Your task to perform on an android device: turn off notifications in google photos Image 0: 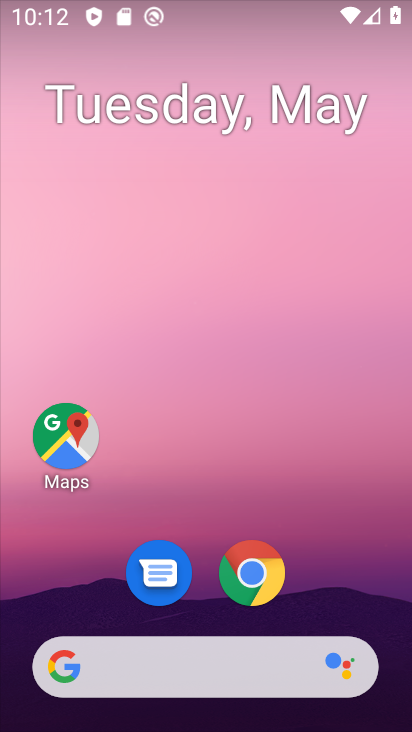
Step 0: drag from (342, 604) to (327, 23)
Your task to perform on an android device: turn off notifications in google photos Image 1: 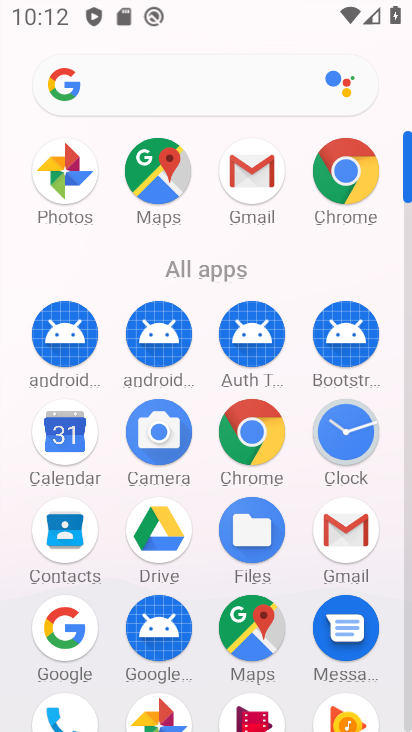
Step 1: drag from (299, 259) to (313, 26)
Your task to perform on an android device: turn off notifications in google photos Image 2: 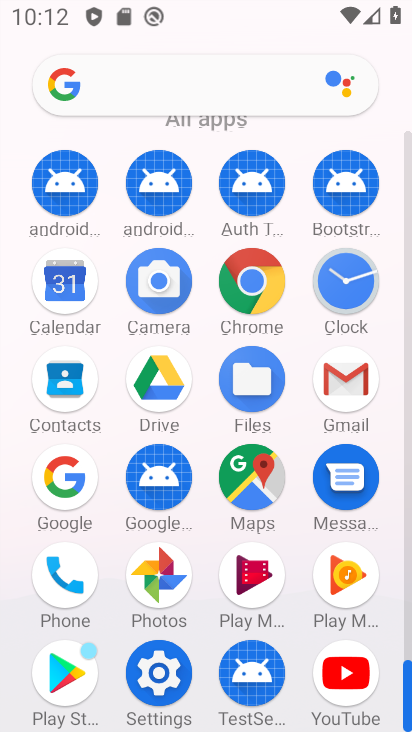
Step 2: click (169, 569)
Your task to perform on an android device: turn off notifications in google photos Image 3: 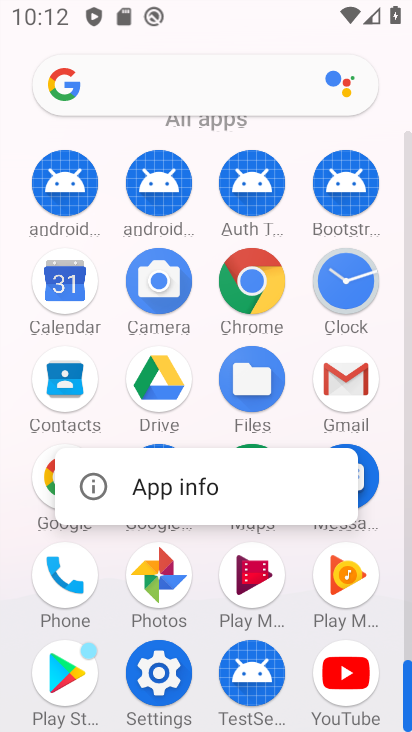
Step 3: click (277, 461)
Your task to perform on an android device: turn off notifications in google photos Image 4: 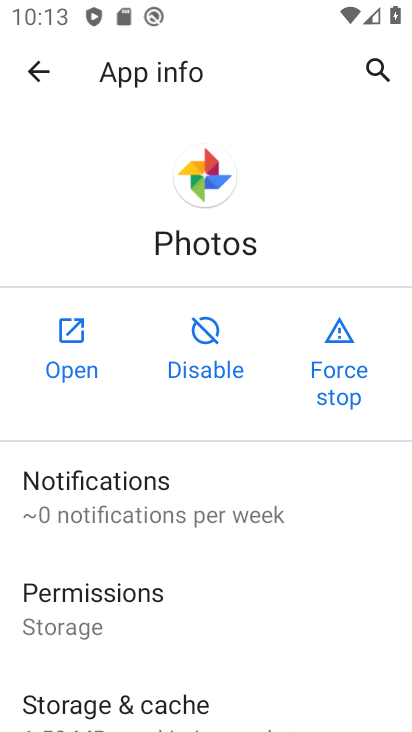
Step 4: click (86, 503)
Your task to perform on an android device: turn off notifications in google photos Image 5: 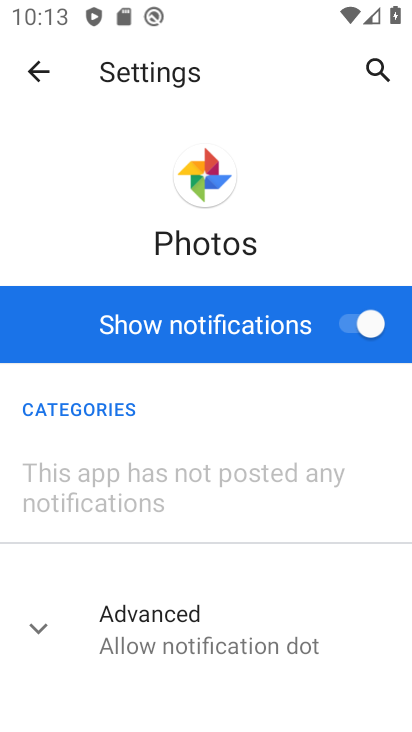
Step 5: task complete